Your task to perform on an android device: Open Yahoo.com Image 0: 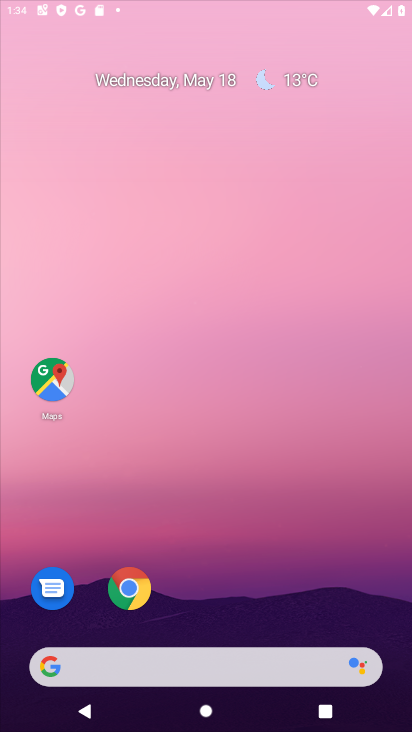
Step 0: click (245, 131)
Your task to perform on an android device: Open Yahoo.com Image 1: 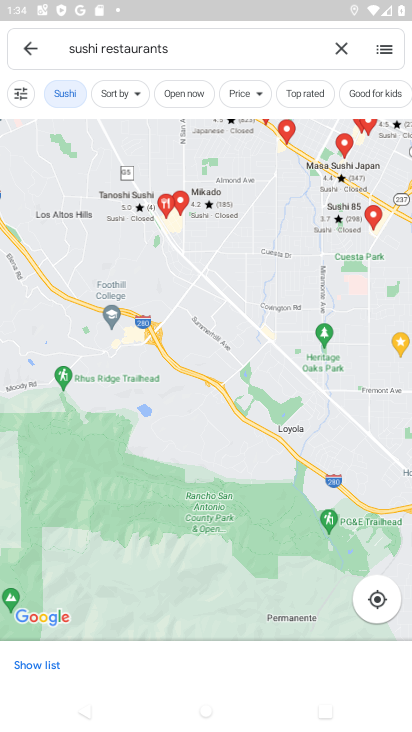
Step 1: press home button
Your task to perform on an android device: Open Yahoo.com Image 2: 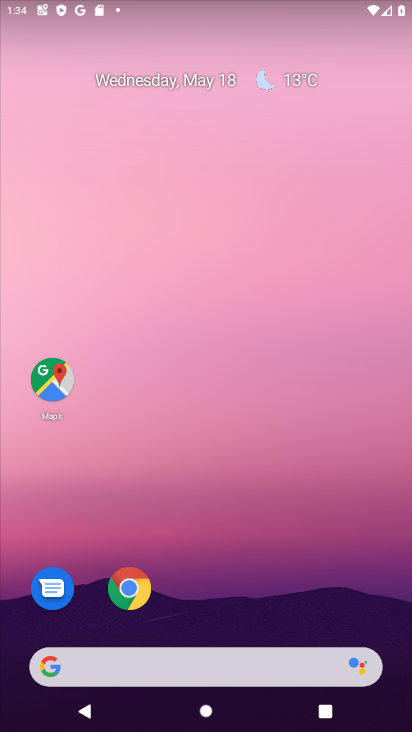
Step 2: drag from (199, 659) to (232, 132)
Your task to perform on an android device: Open Yahoo.com Image 3: 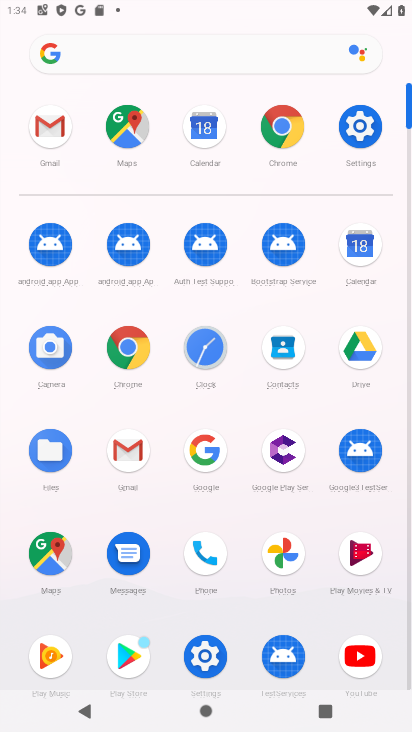
Step 3: click (129, 57)
Your task to perform on an android device: Open Yahoo.com Image 4: 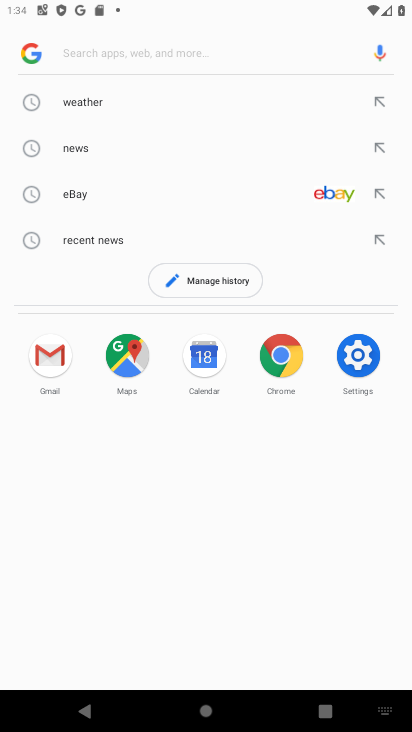
Step 4: type "yahoo"
Your task to perform on an android device: Open Yahoo.com Image 5: 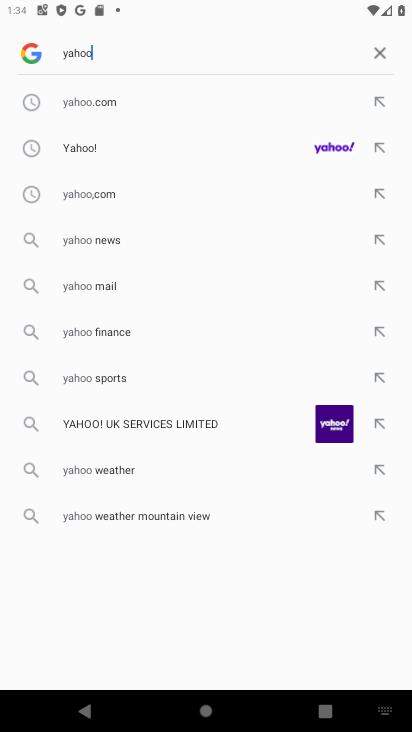
Step 5: click (111, 96)
Your task to perform on an android device: Open Yahoo.com Image 6: 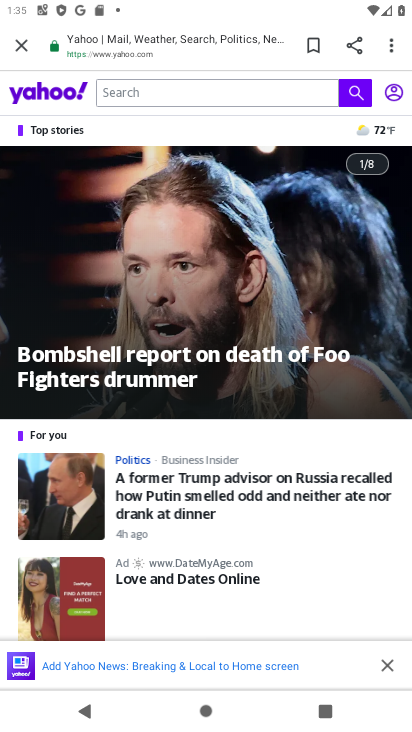
Step 6: task complete